Your task to perform on an android device: open a bookmark in the chrome app Image 0: 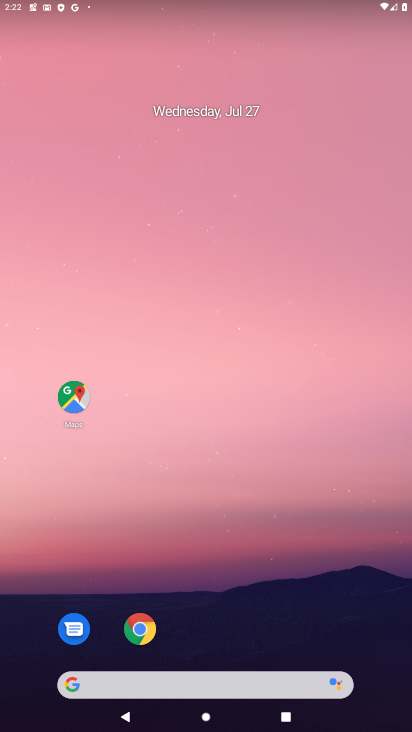
Step 0: task complete